Your task to perform on an android device: toggle notification dots Image 0: 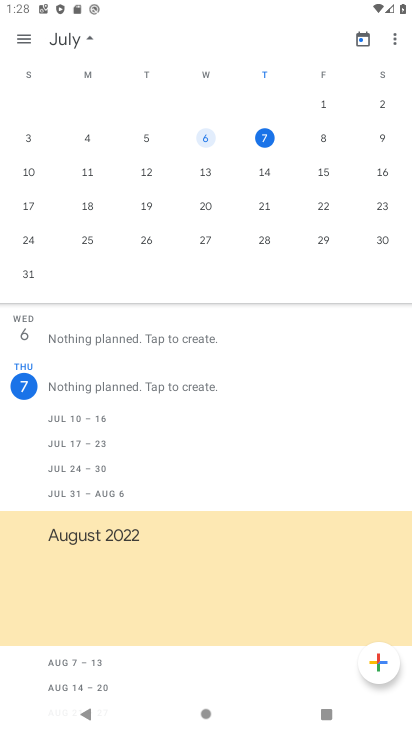
Step 0: press home button
Your task to perform on an android device: toggle notification dots Image 1: 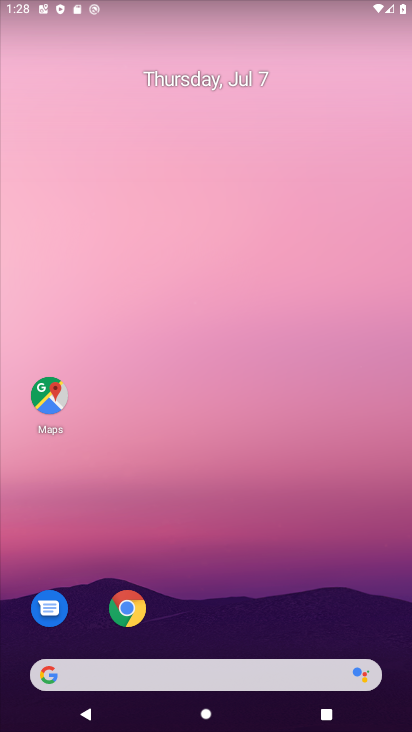
Step 1: drag from (216, 657) to (283, 9)
Your task to perform on an android device: toggle notification dots Image 2: 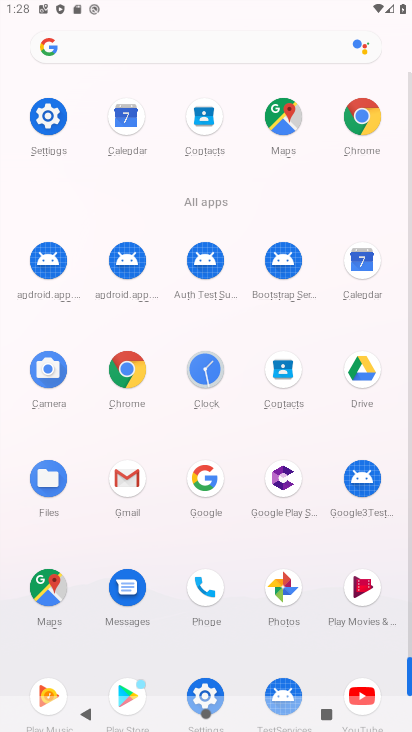
Step 2: click (36, 119)
Your task to perform on an android device: toggle notification dots Image 3: 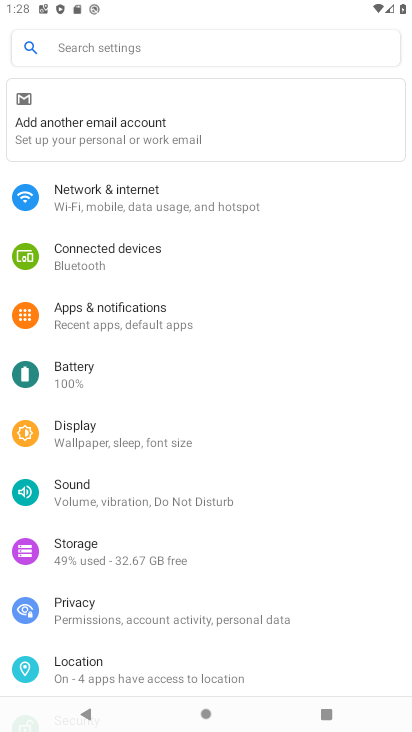
Step 3: click (208, 322)
Your task to perform on an android device: toggle notification dots Image 4: 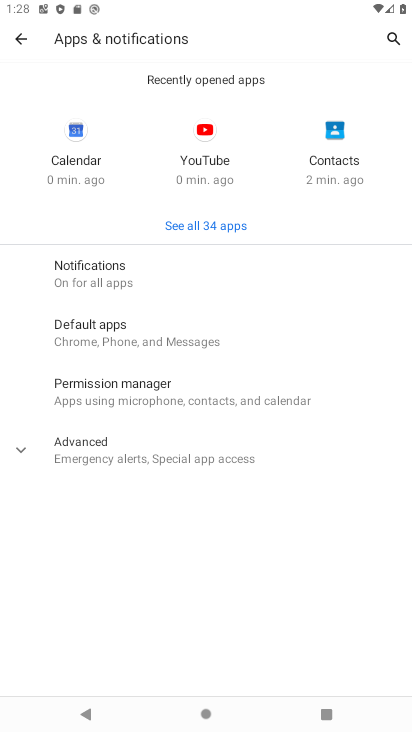
Step 4: click (161, 266)
Your task to perform on an android device: toggle notification dots Image 5: 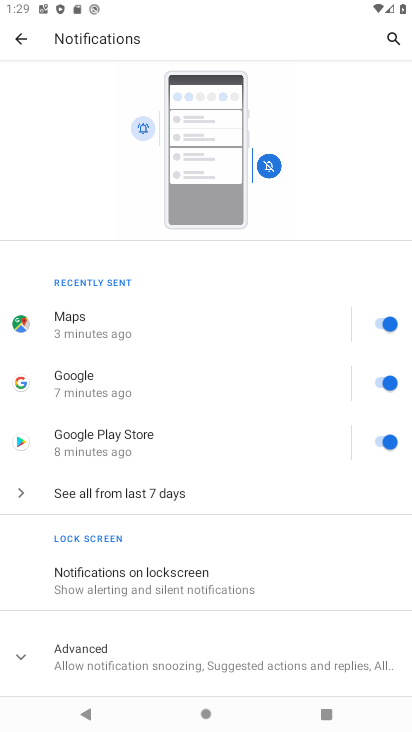
Step 5: drag from (205, 636) to (218, 393)
Your task to perform on an android device: toggle notification dots Image 6: 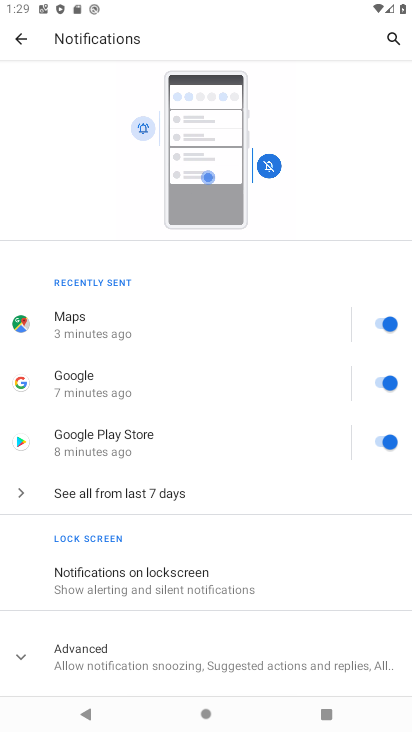
Step 6: click (175, 656)
Your task to perform on an android device: toggle notification dots Image 7: 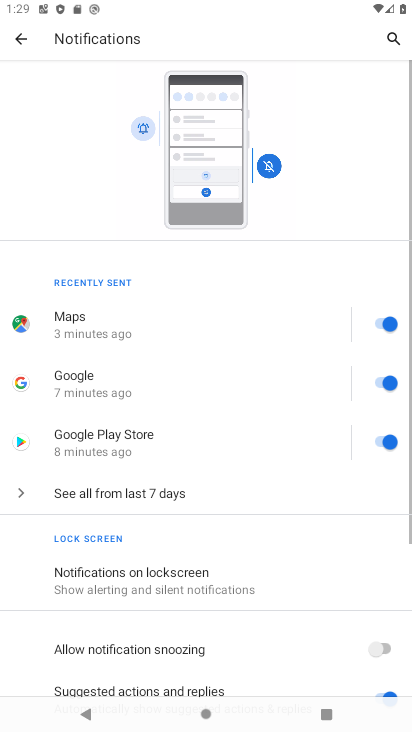
Step 7: drag from (175, 656) to (224, 272)
Your task to perform on an android device: toggle notification dots Image 8: 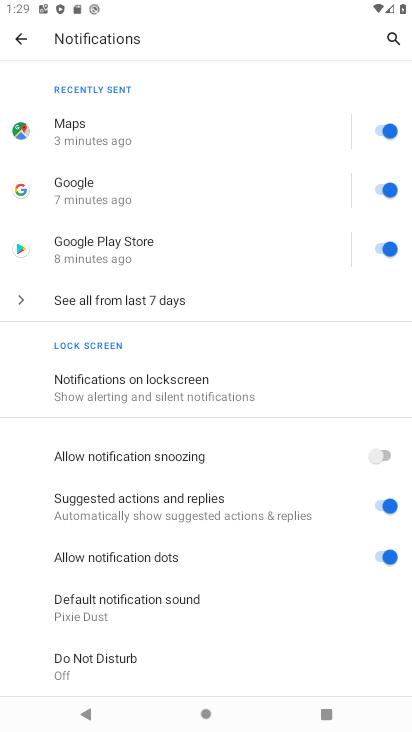
Step 8: click (381, 554)
Your task to perform on an android device: toggle notification dots Image 9: 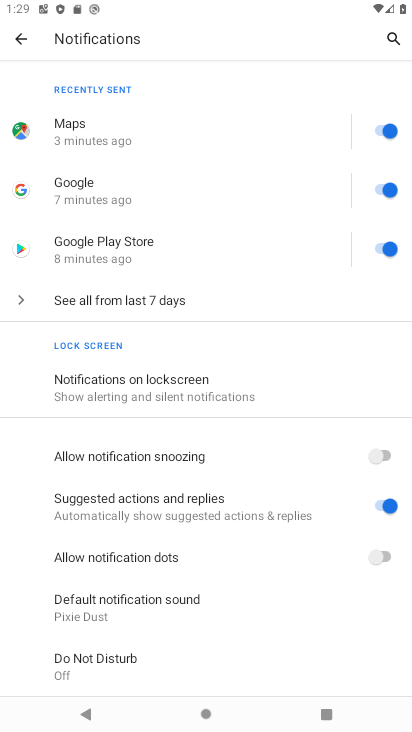
Step 9: task complete